Your task to perform on an android device: Find coffee shops on Maps Image 0: 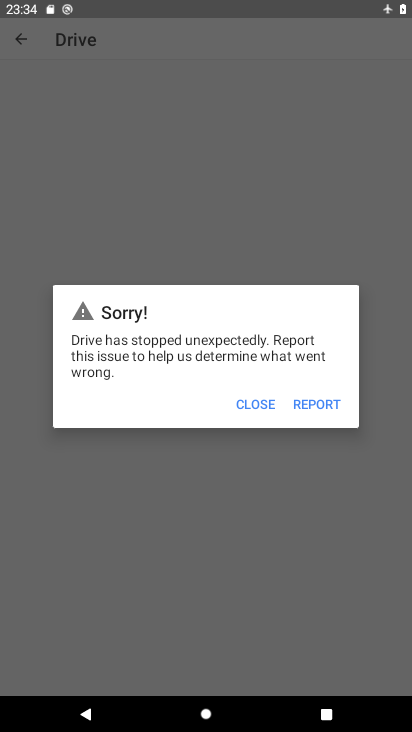
Step 0: press home button
Your task to perform on an android device: Find coffee shops on Maps Image 1: 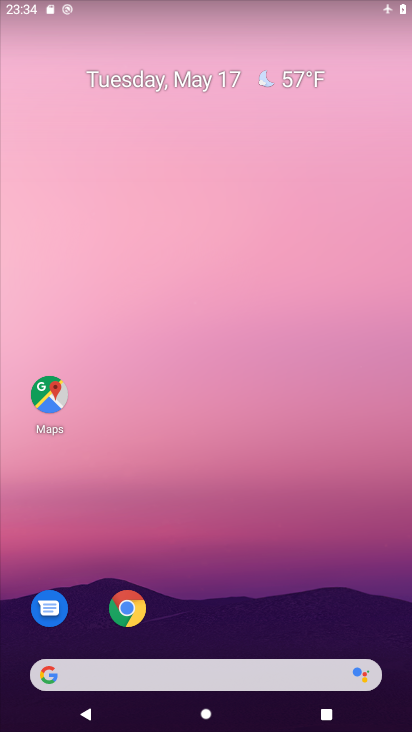
Step 1: click (47, 399)
Your task to perform on an android device: Find coffee shops on Maps Image 2: 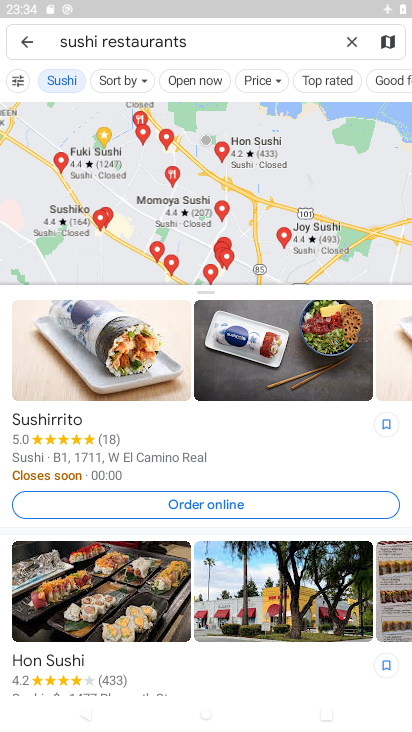
Step 2: click (348, 43)
Your task to perform on an android device: Find coffee shops on Maps Image 3: 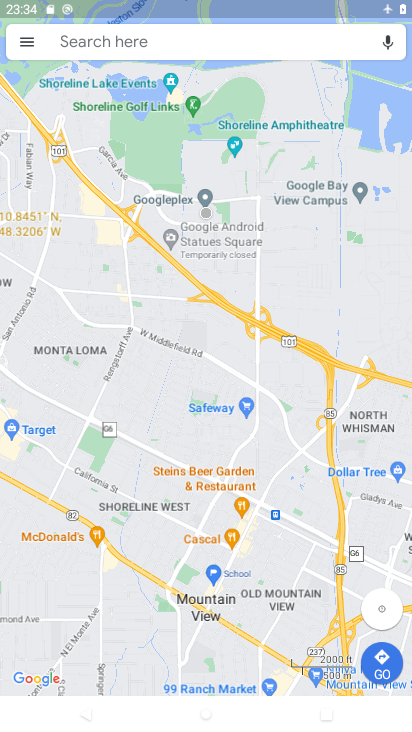
Step 3: click (167, 47)
Your task to perform on an android device: Find coffee shops on Maps Image 4: 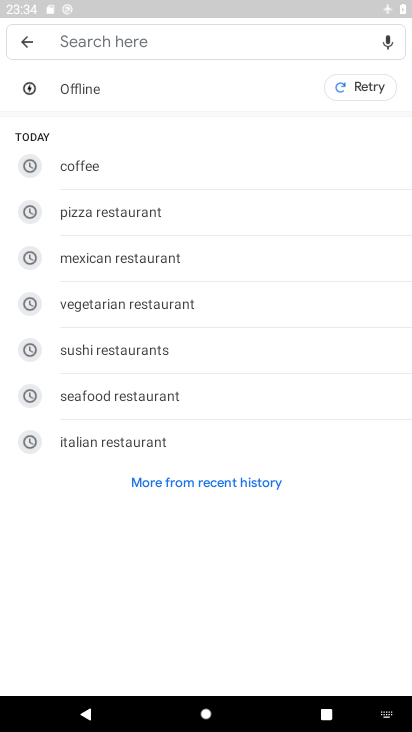
Step 4: type "coffee shops"
Your task to perform on an android device: Find coffee shops on Maps Image 5: 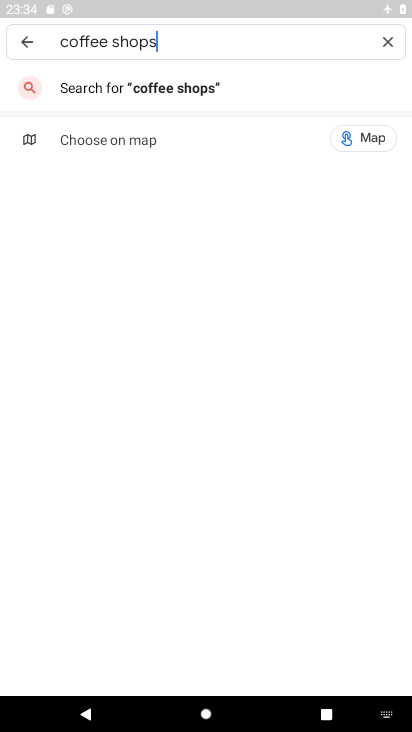
Step 5: click (158, 86)
Your task to perform on an android device: Find coffee shops on Maps Image 6: 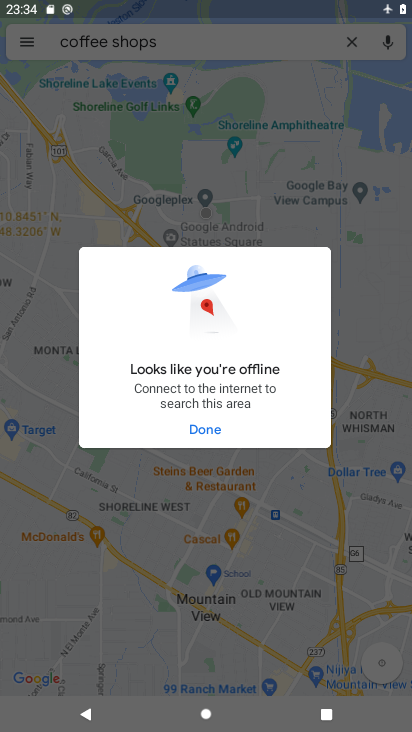
Step 6: click (193, 432)
Your task to perform on an android device: Find coffee shops on Maps Image 7: 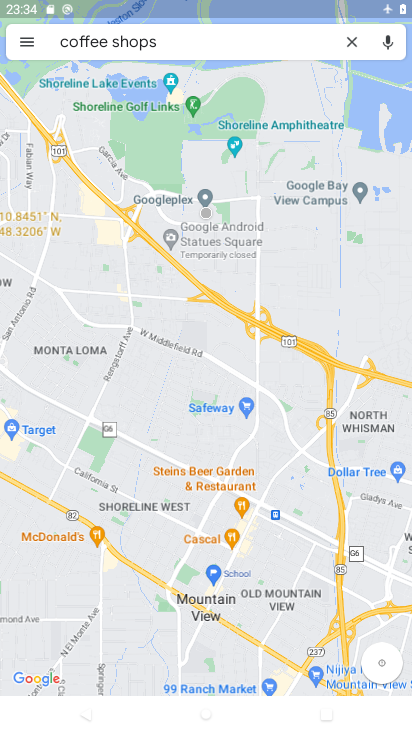
Step 7: task complete